Your task to perform on an android device: turn notification dots on Image 0: 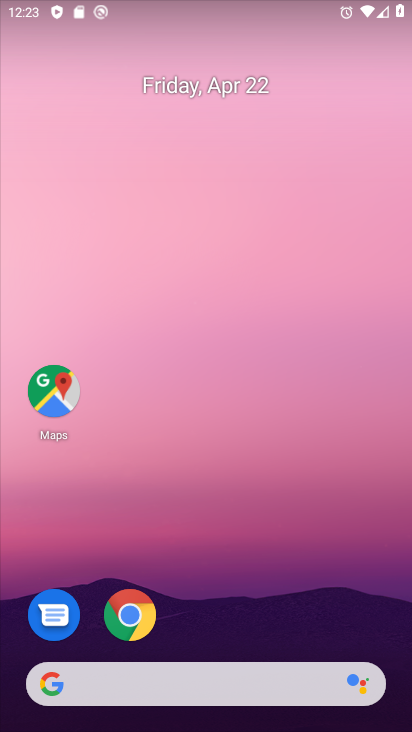
Step 0: press home button
Your task to perform on an android device: turn notification dots on Image 1: 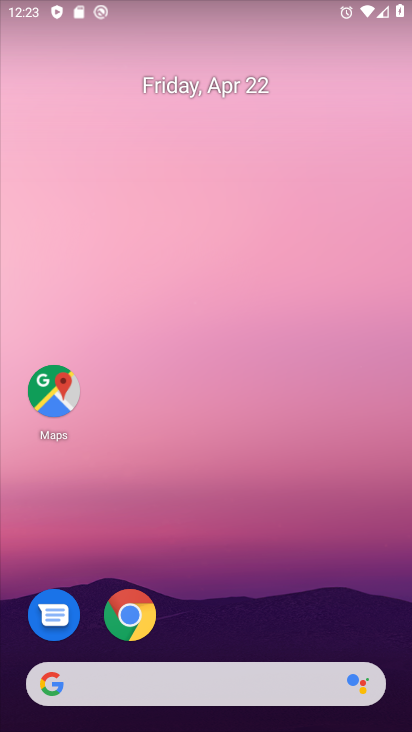
Step 1: drag from (261, 725) to (207, 153)
Your task to perform on an android device: turn notification dots on Image 2: 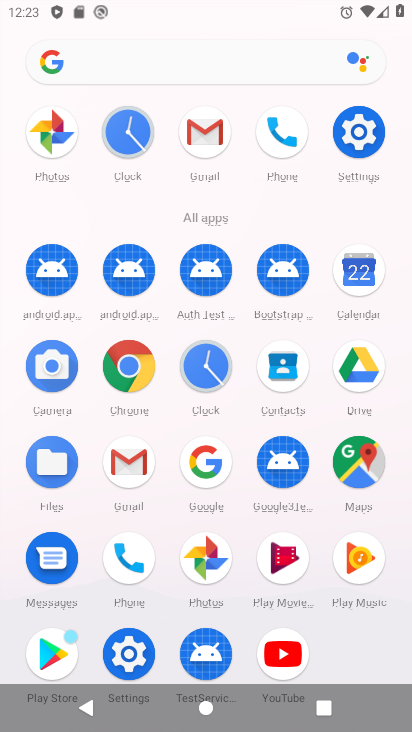
Step 2: click (375, 132)
Your task to perform on an android device: turn notification dots on Image 3: 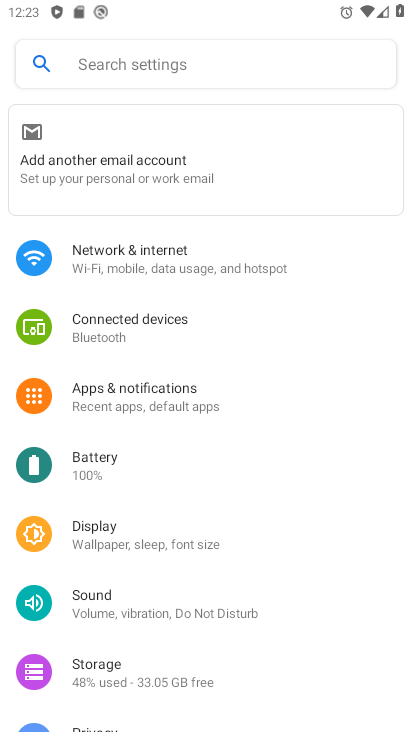
Step 3: click (214, 390)
Your task to perform on an android device: turn notification dots on Image 4: 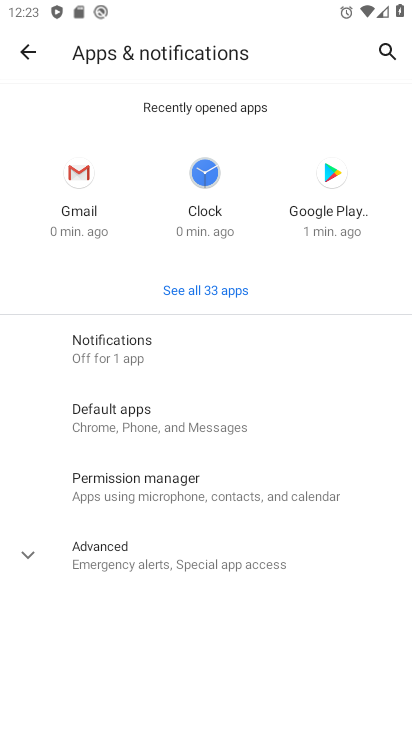
Step 4: click (226, 341)
Your task to perform on an android device: turn notification dots on Image 5: 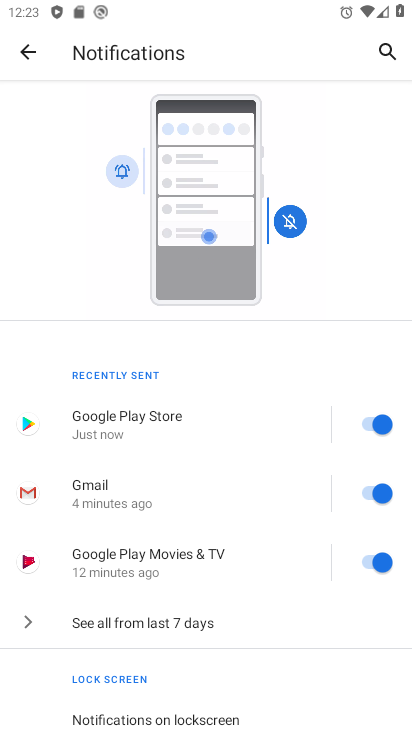
Step 5: drag from (319, 644) to (226, 100)
Your task to perform on an android device: turn notification dots on Image 6: 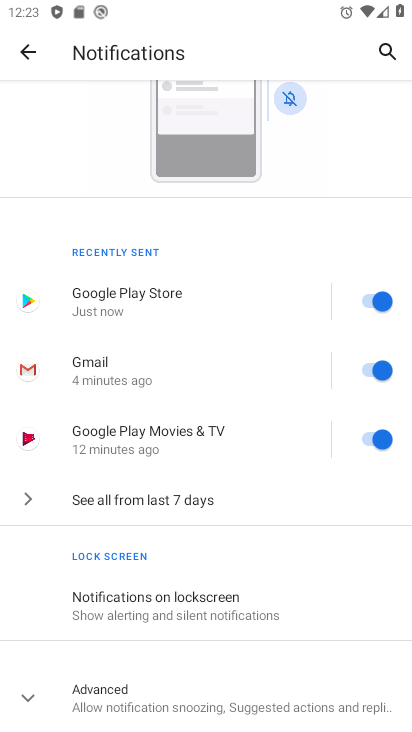
Step 6: click (240, 688)
Your task to perform on an android device: turn notification dots on Image 7: 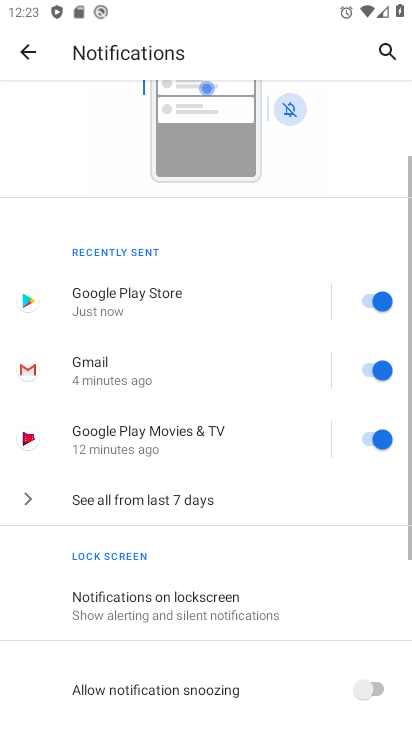
Step 7: task complete